Your task to perform on an android device: stop showing notifications on the lock screen Image 0: 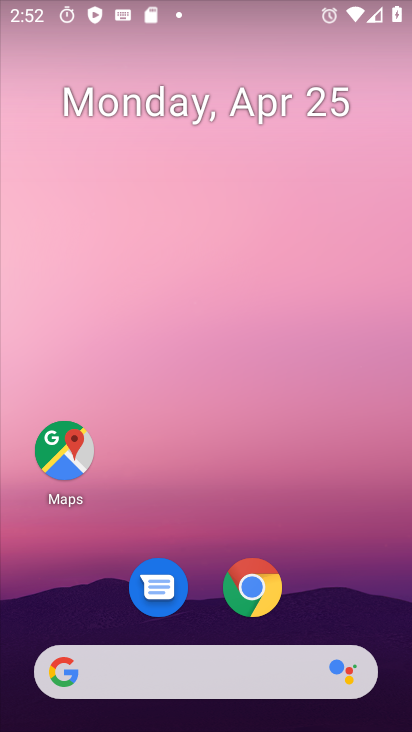
Step 0: drag from (347, 567) to (277, 124)
Your task to perform on an android device: stop showing notifications on the lock screen Image 1: 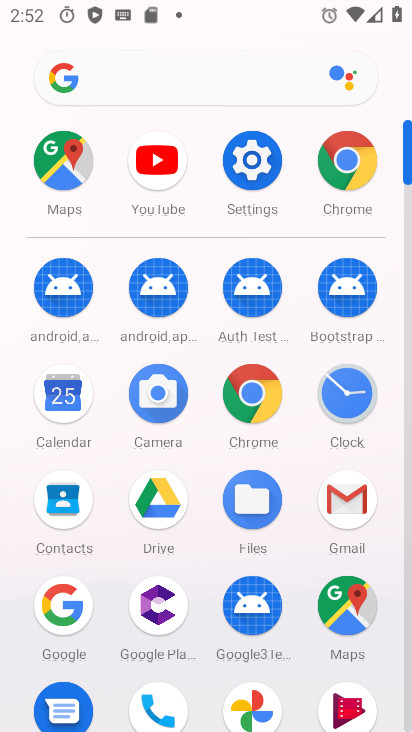
Step 1: click (268, 162)
Your task to perform on an android device: stop showing notifications on the lock screen Image 2: 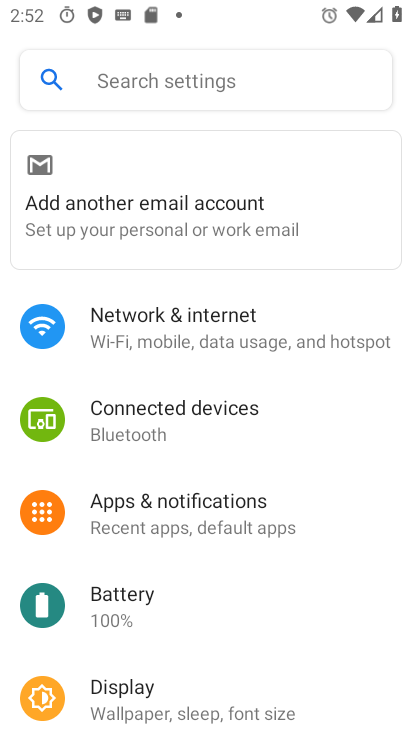
Step 2: click (233, 533)
Your task to perform on an android device: stop showing notifications on the lock screen Image 3: 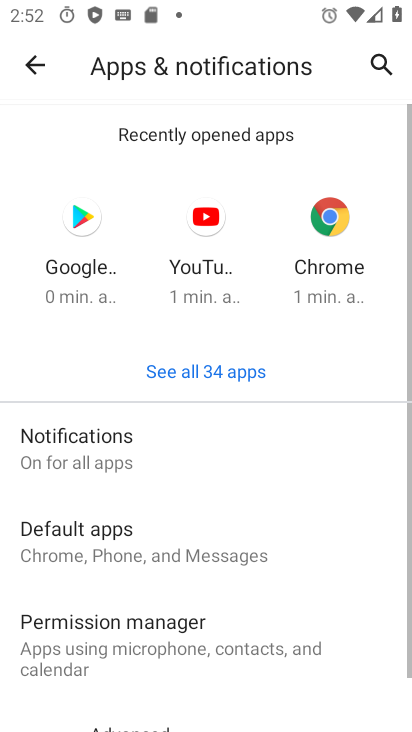
Step 3: click (114, 450)
Your task to perform on an android device: stop showing notifications on the lock screen Image 4: 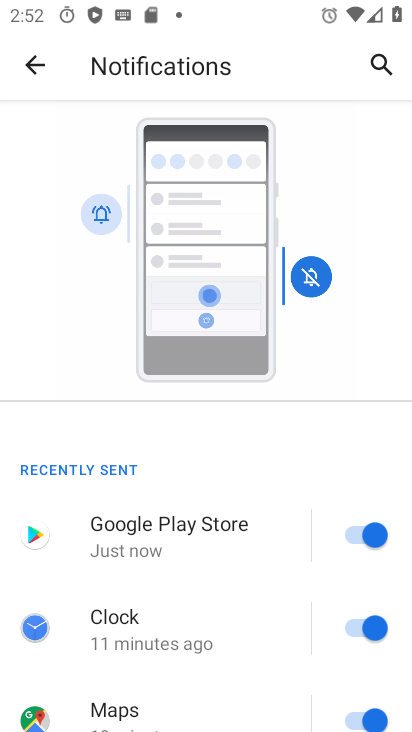
Step 4: drag from (240, 660) to (263, 27)
Your task to perform on an android device: stop showing notifications on the lock screen Image 5: 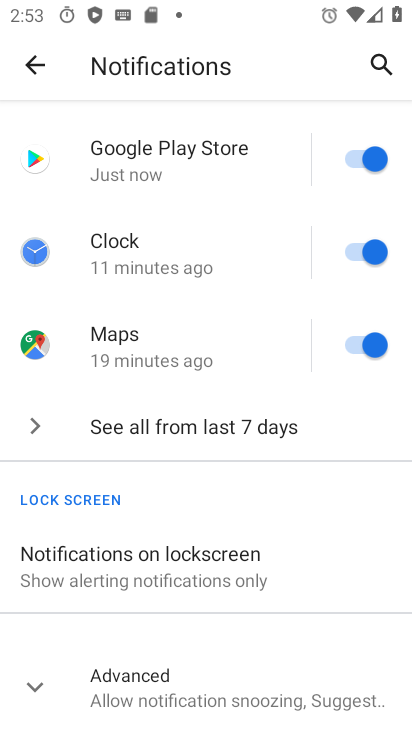
Step 5: click (208, 573)
Your task to perform on an android device: stop showing notifications on the lock screen Image 6: 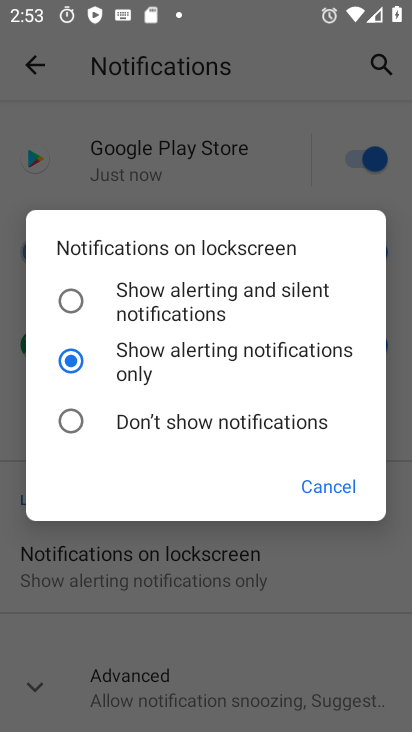
Step 6: click (184, 423)
Your task to perform on an android device: stop showing notifications on the lock screen Image 7: 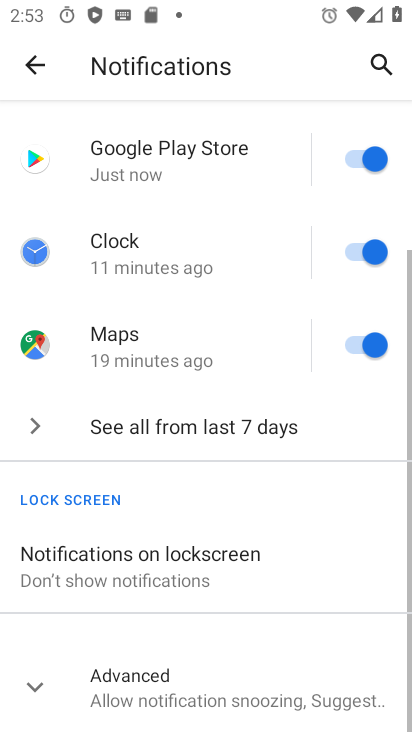
Step 7: task complete